Your task to perform on an android device: Open calendar and show me the first week of next month Image 0: 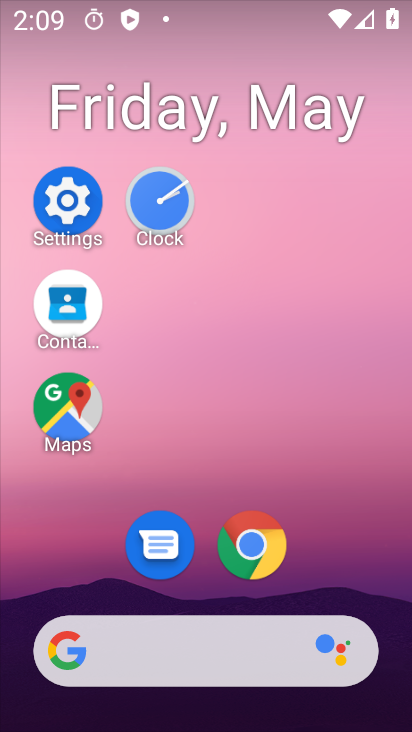
Step 0: drag from (357, 402) to (333, 96)
Your task to perform on an android device: Open calendar and show me the first week of next month Image 1: 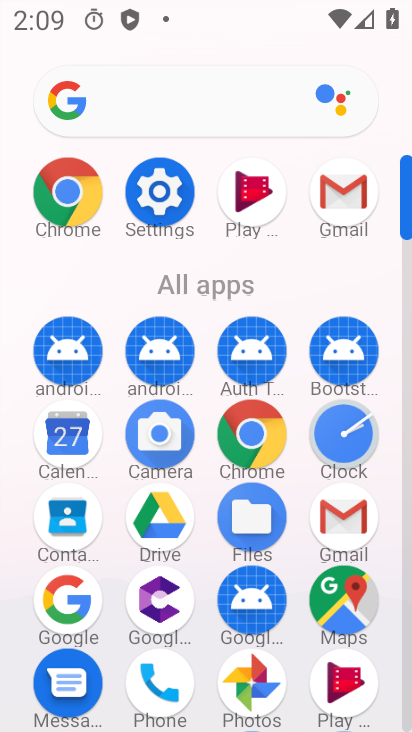
Step 1: drag from (64, 441) to (245, 223)
Your task to perform on an android device: Open calendar and show me the first week of next month Image 2: 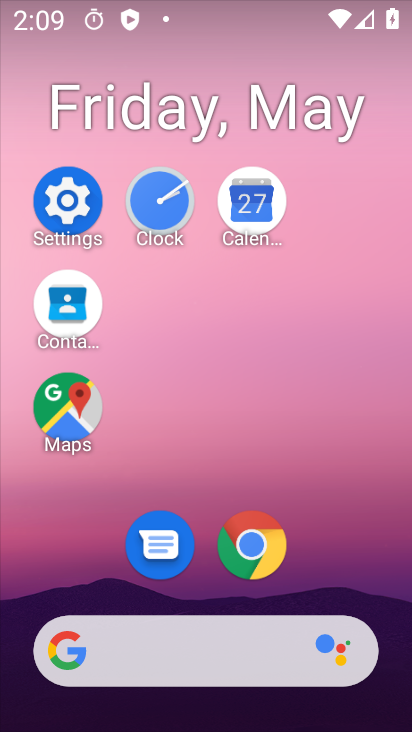
Step 2: click (270, 221)
Your task to perform on an android device: Open calendar and show me the first week of next month Image 3: 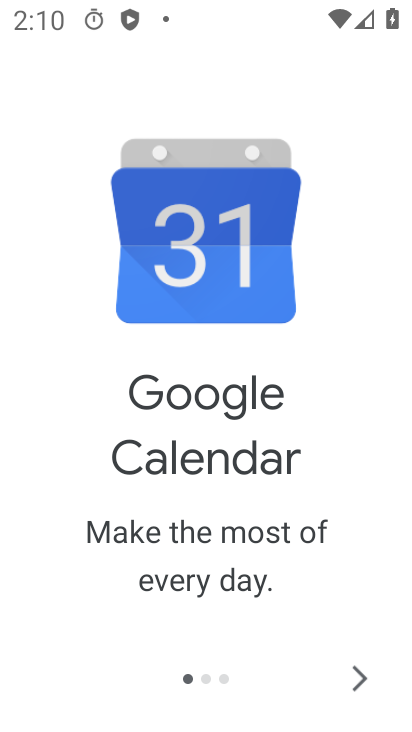
Step 3: click (356, 689)
Your task to perform on an android device: Open calendar and show me the first week of next month Image 4: 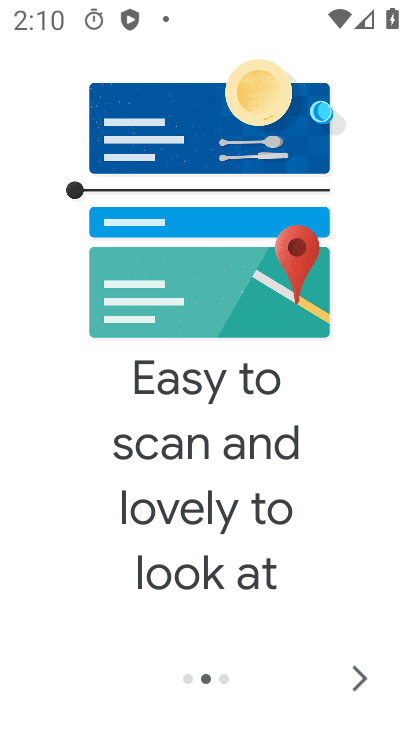
Step 4: click (356, 689)
Your task to perform on an android device: Open calendar and show me the first week of next month Image 5: 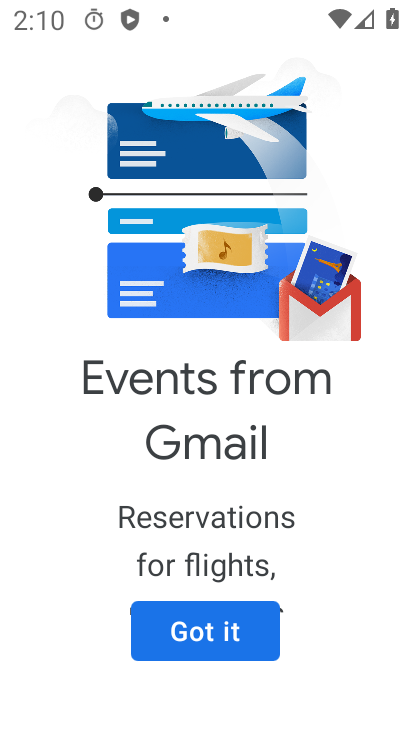
Step 5: click (356, 689)
Your task to perform on an android device: Open calendar and show me the first week of next month Image 6: 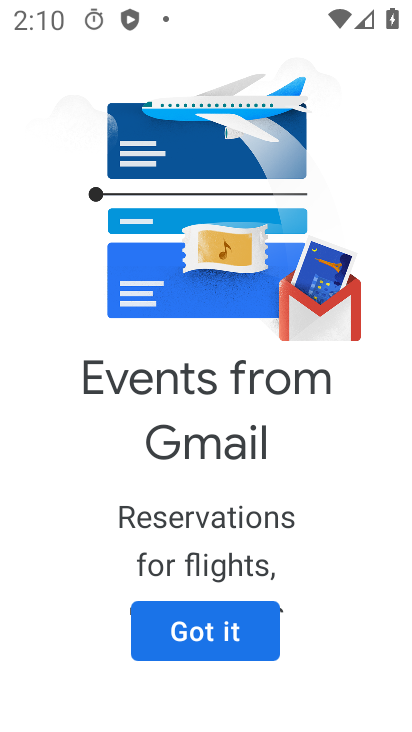
Step 6: click (226, 614)
Your task to perform on an android device: Open calendar and show me the first week of next month Image 7: 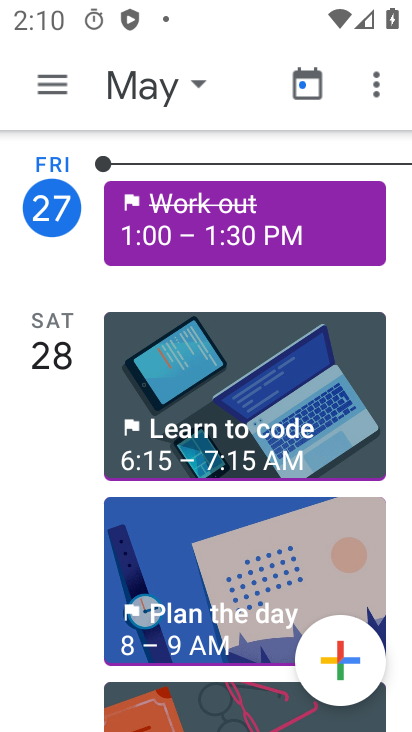
Step 7: click (189, 89)
Your task to perform on an android device: Open calendar and show me the first week of next month Image 8: 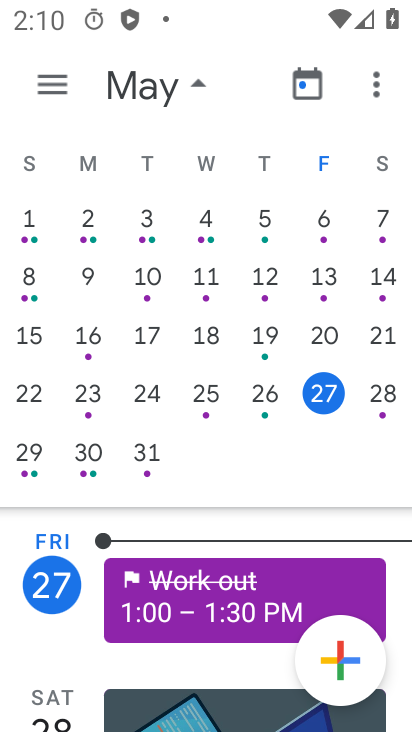
Step 8: drag from (296, 322) to (20, 297)
Your task to perform on an android device: Open calendar and show me the first week of next month Image 9: 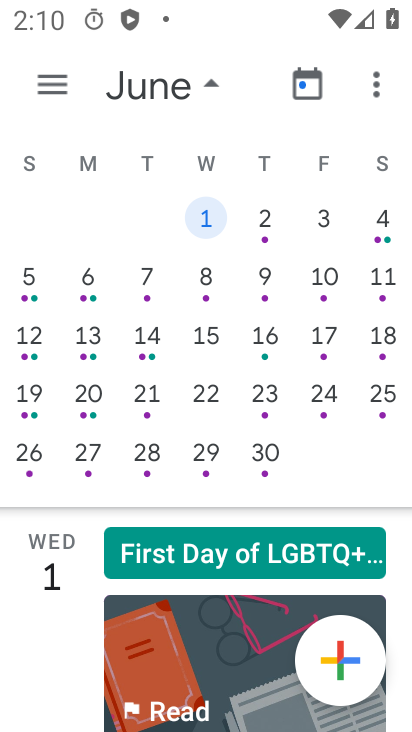
Step 9: click (46, 99)
Your task to perform on an android device: Open calendar and show me the first week of next month Image 10: 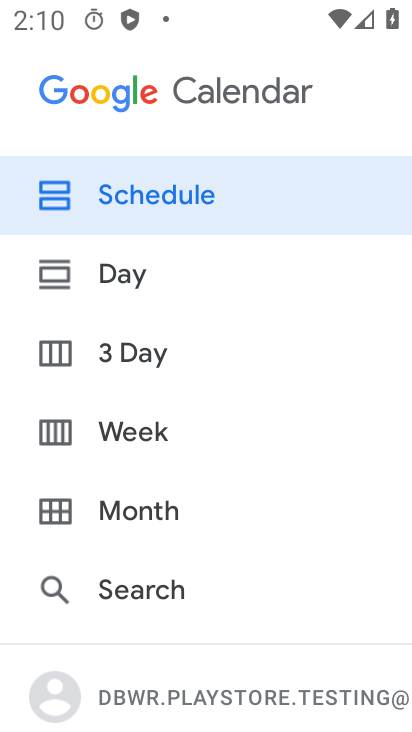
Step 10: click (145, 444)
Your task to perform on an android device: Open calendar and show me the first week of next month Image 11: 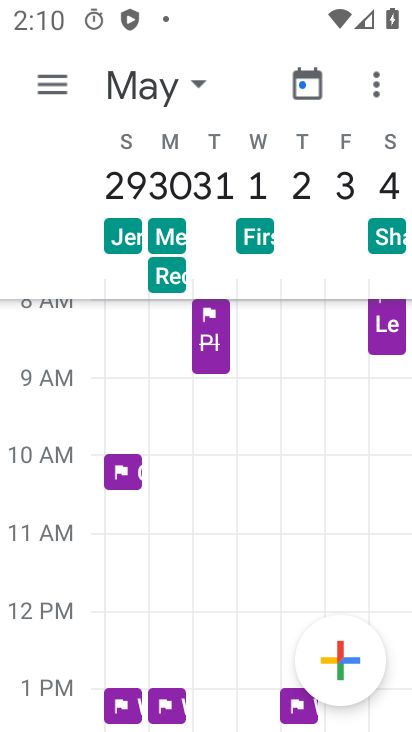
Step 11: task complete